Your task to perform on an android device: Go to Google Image 0: 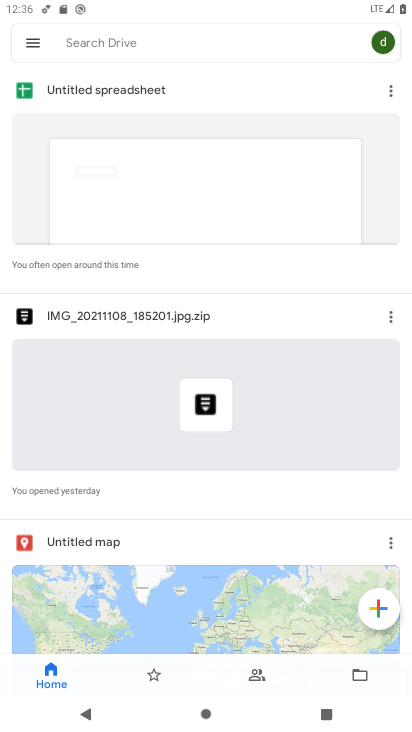
Step 0: press home button
Your task to perform on an android device: Go to Google Image 1: 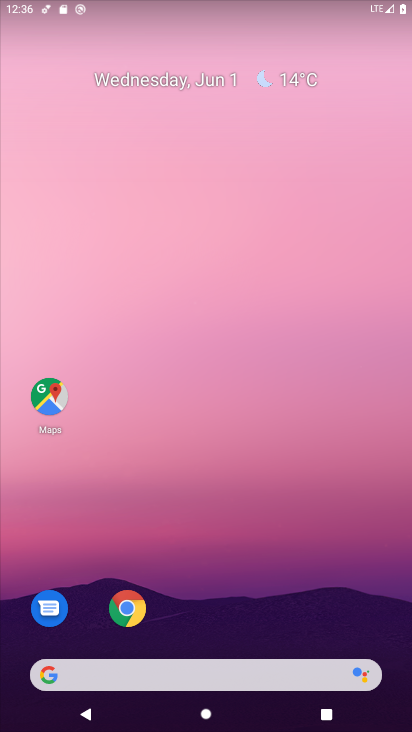
Step 1: click (170, 666)
Your task to perform on an android device: Go to Google Image 2: 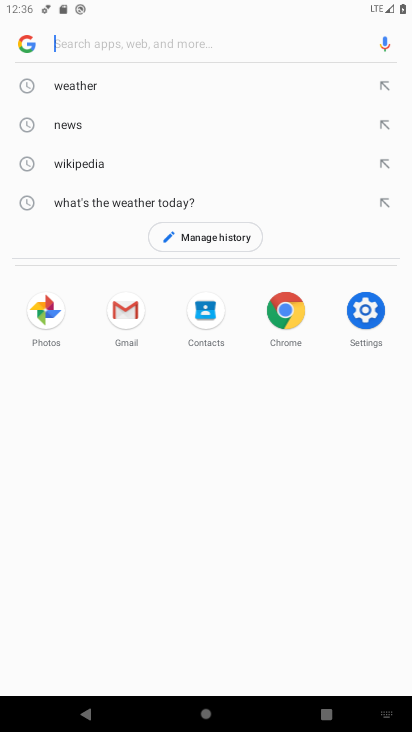
Step 2: click (32, 37)
Your task to perform on an android device: Go to Google Image 3: 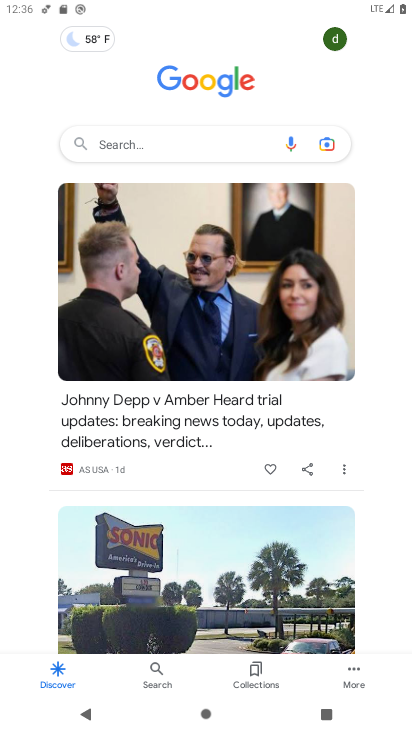
Step 3: task complete